Your task to perform on an android device: toggle notification dots Image 0: 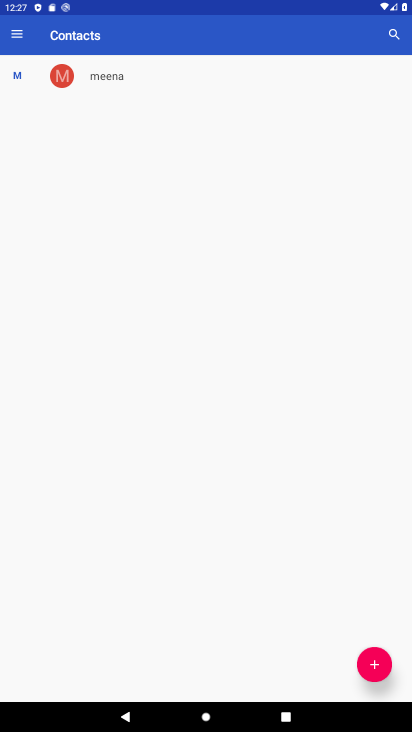
Step 0: press home button
Your task to perform on an android device: toggle notification dots Image 1: 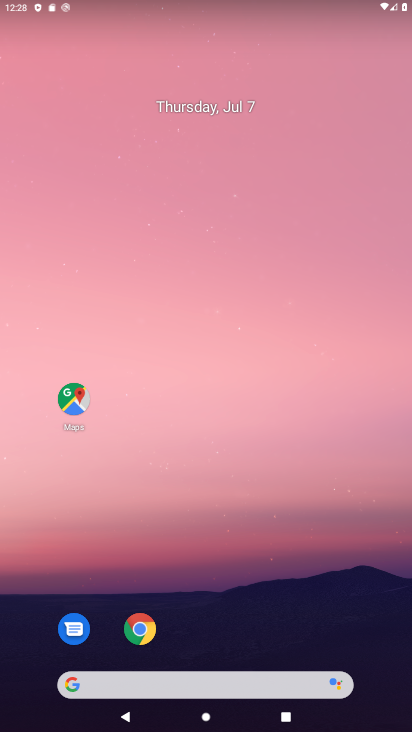
Step 1: drag from (220, 631) to (224, 104)
Your task to perform on an android device: toggle notification dots Image 2: 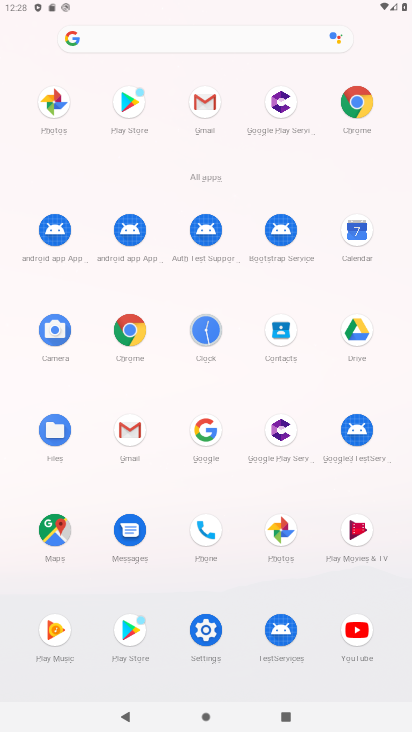
Step 2: click (206, 627)
Your task to perform on an android device: toggle notification dots Image 3: 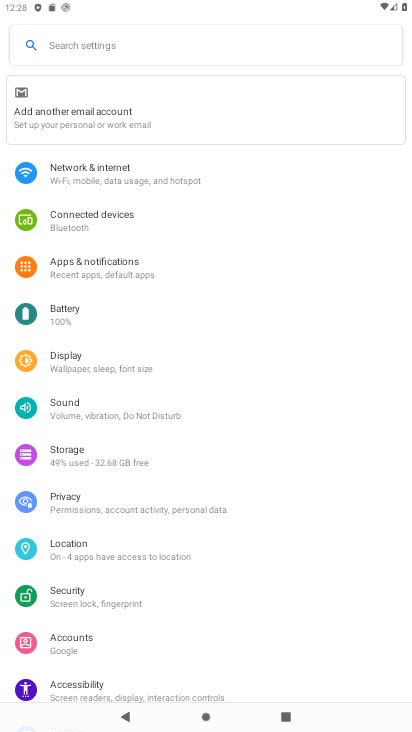
Step 3: click (104, 272)
Your task to perform on an android device: toggle notification dots Image 4: 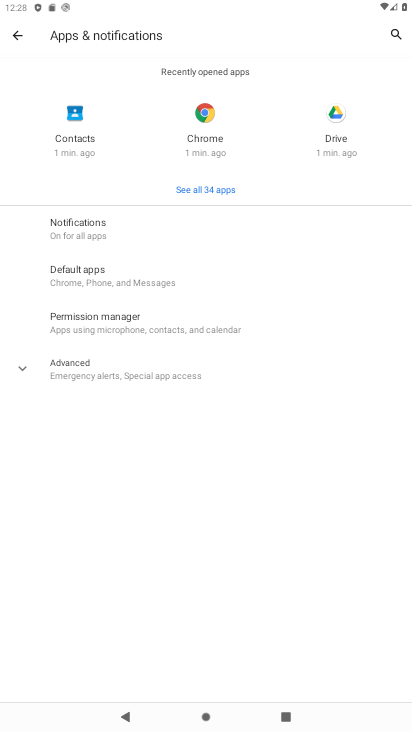
Step 4: click (89, 231)
Your task to perform on an android device: toggle notification dots Image 5: 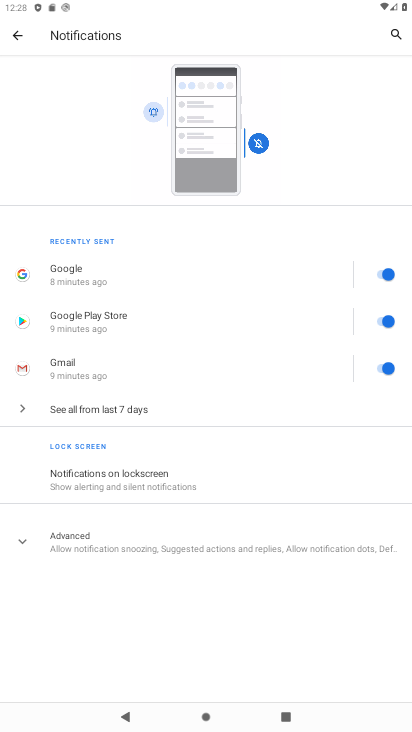
Step 5: click (96, 546)
Your task to perform on an android device: toggle notification dots Image 6: 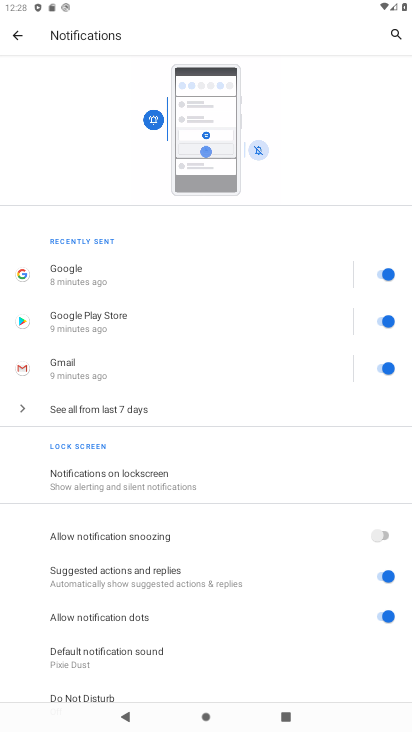
Step 6: click (391, 617)
Your task to perform on an android device: toggle notification dots Image 7: 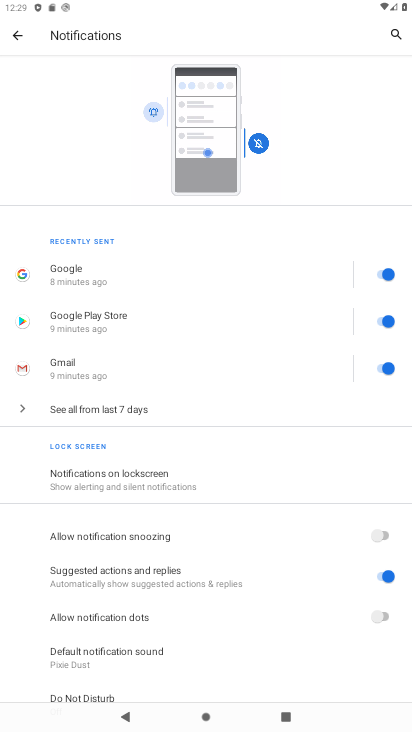
Step 7: task complete